Your task to perform on an android device: read, delete, or share a saved page in the chrome app Image 0: 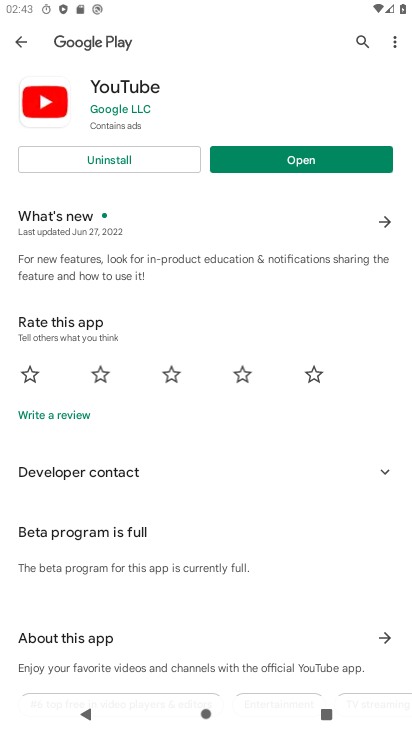
Step 0: press home button
Your task to perform on an android device: read, delete, or share a saved page in the chrome app Image 1: 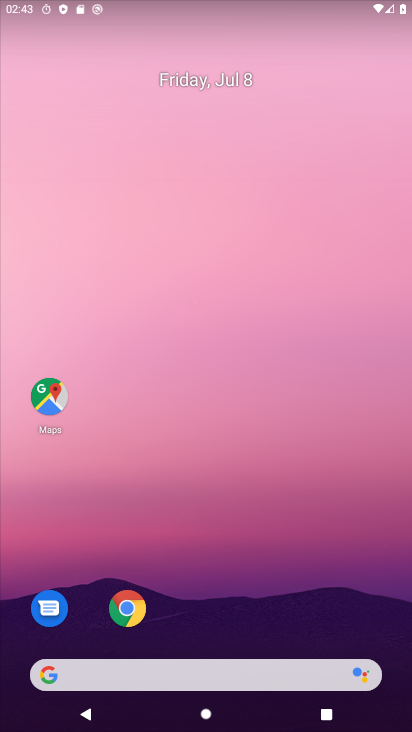
Step 1: click (132, 607)
Your task to perform on an android device: read, delete, or share a saved page in the chrome app Image 2: 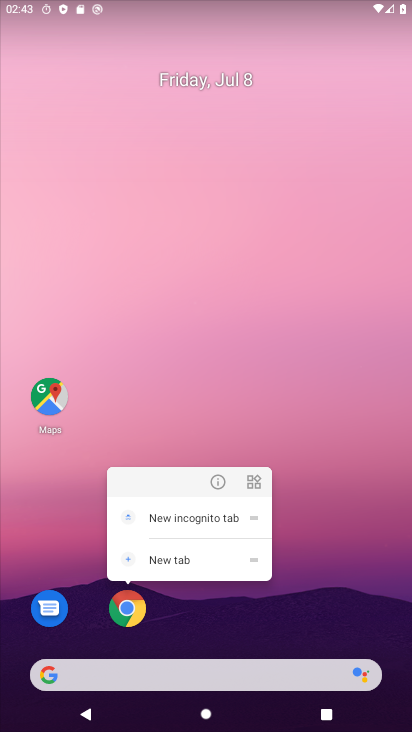
Step 2: click (130, 606)
Your task to perform on an android device: read, delete, or share a saved page in the chrome app Image 3: 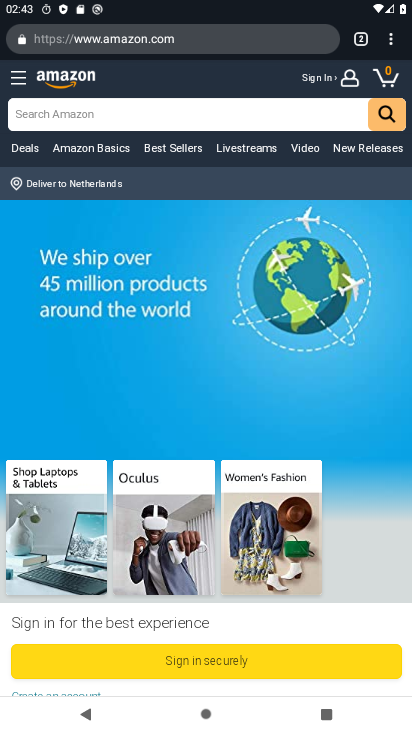
Step 3: click (388, 42)
Your task to perform on an android device: read, delete, or share a saved page in the chrome app Image 4: 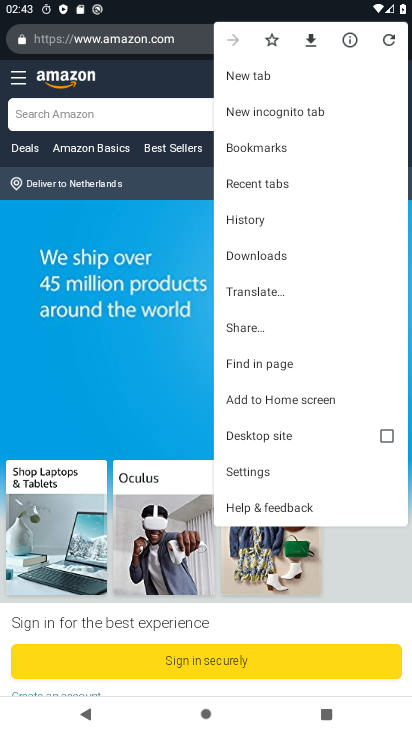
Step 4: click (278, 256)
Your task to perform on an android device: read, delete, or share a saved page in the chrome app Image 5: 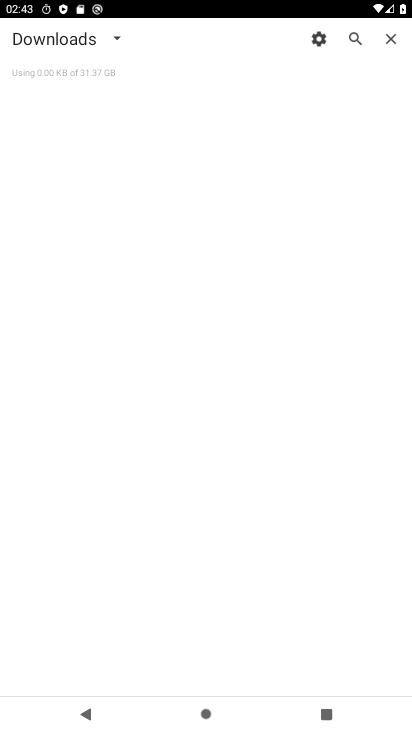
Step 5: task complete